Your task to perform on an android device: find snoozed emails in the gmail app Image 0: 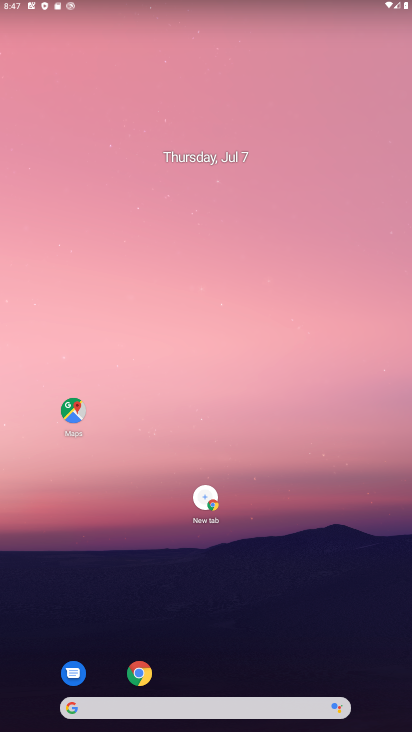
Step 0: press home button
Your task to perform on an android device: find snoozed emails in the gmail app Image 1: 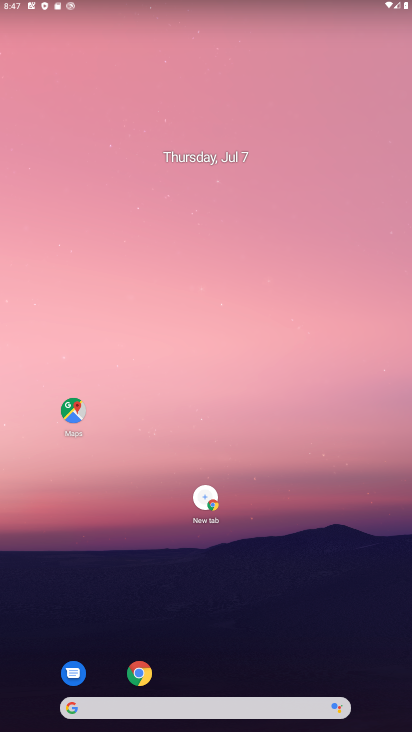
Step 1: drag from (295, 645) to (256, 51)
Your task to perform on an android device: find snoozed emails in the gmail app Image 2: 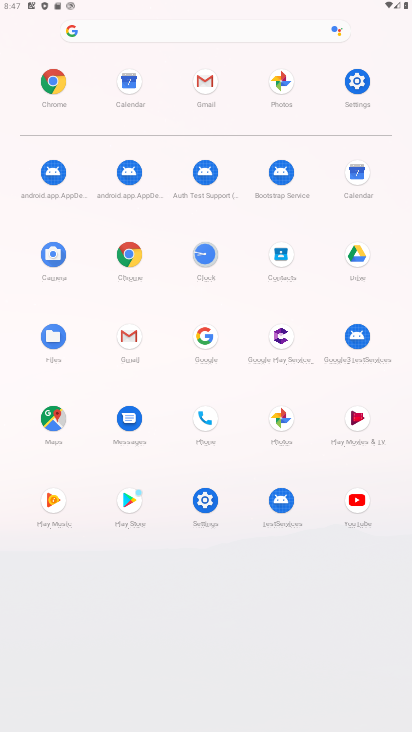
Step 2: click (207, 95)
Your task to perform on an android device: find snoozed emails in the gmail app Image 3: 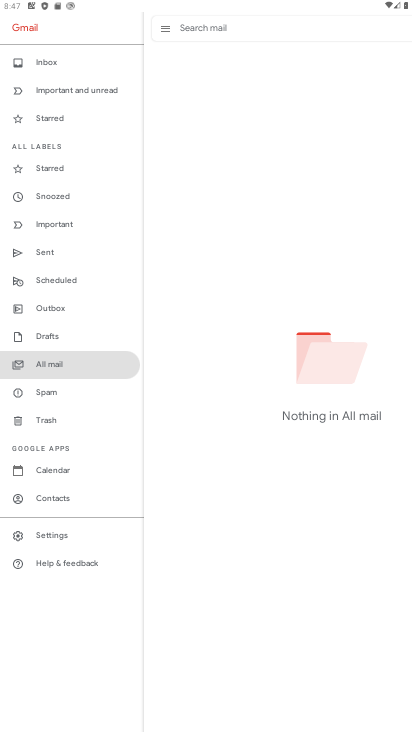
Step 3: click (62, 195)
Your task to perform on an android device: find snoozed emails in the gmail app Image 4: 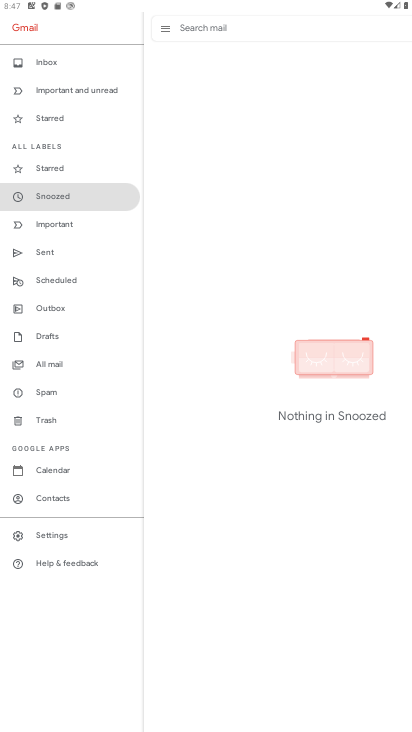
Step 4: task complete